Your task to perform on an android device: Check out the new ikea catalog. Image 0: 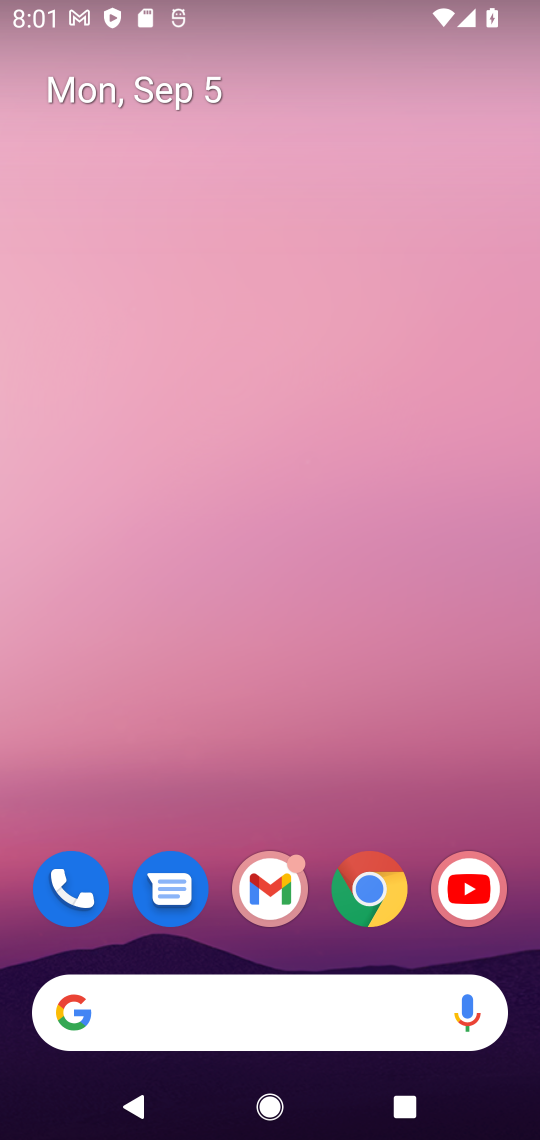
Step 0: click (272, 1016)
Your task to perform on an android device: Check out the new ikea catalog. Image 1: 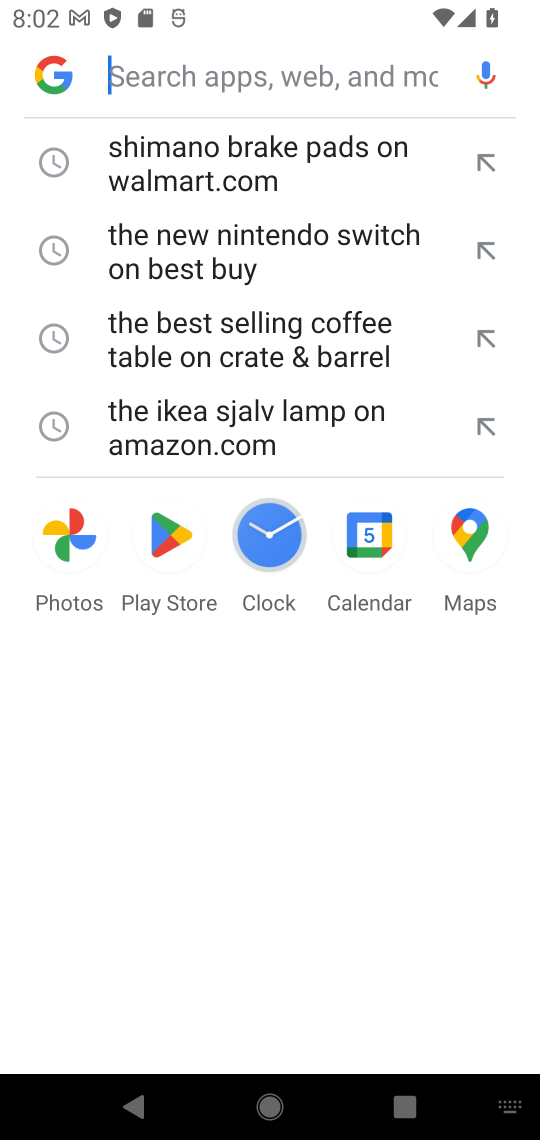
Step 1: type "the new ikea catalog"
Your task to perform on an android device: Check out the new ikea catalog. Image 2: 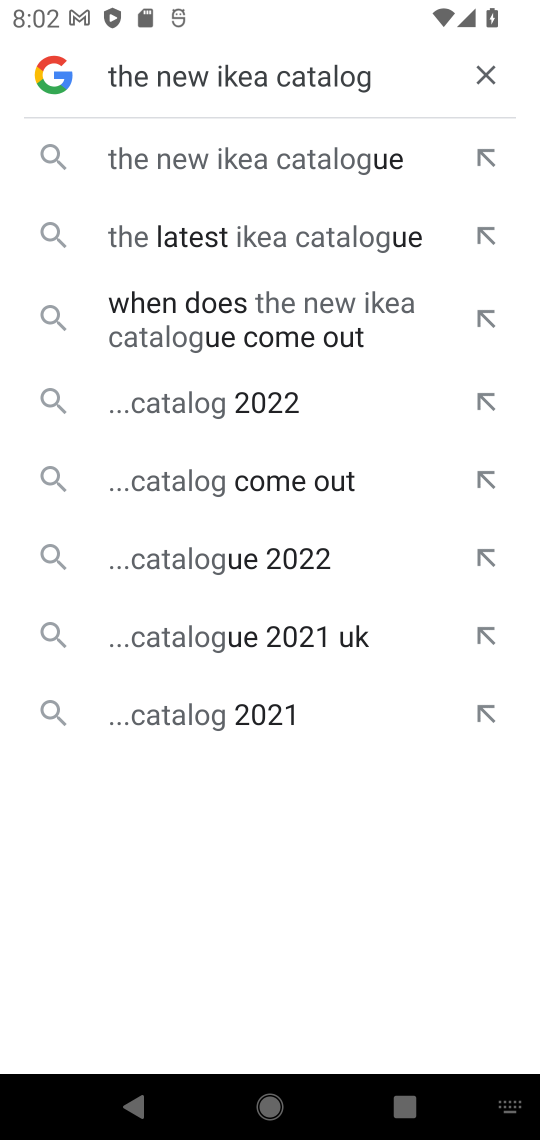
Step 2: click (227, 162)
Your task to perform on an android device: Check out the new ikea catalog. Image 3: 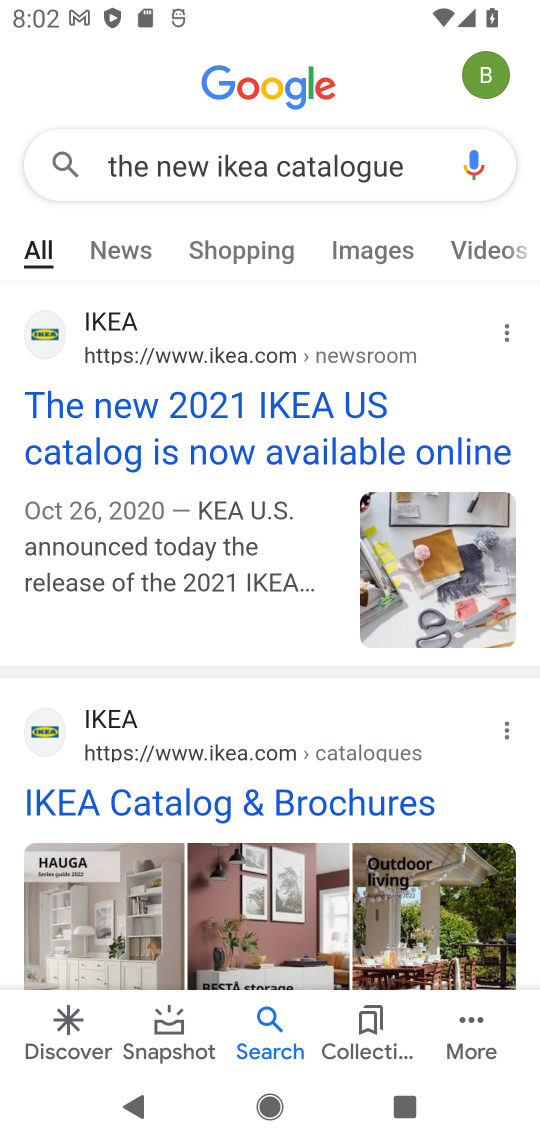
Step 3: click (243, 162)
Your task to perform on an android device: Check out the new ikea catalog. Image 4: 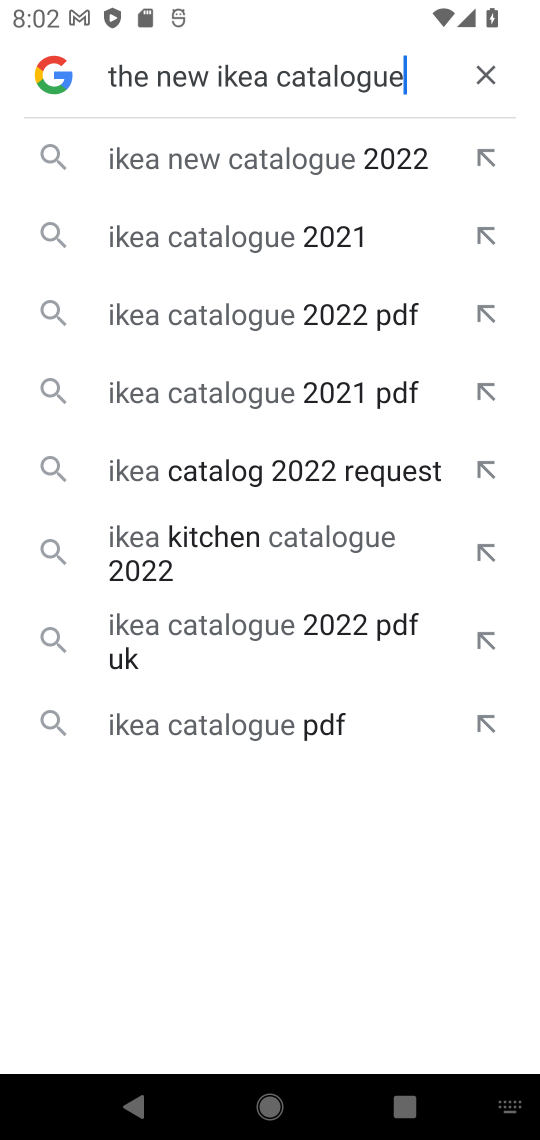
Step 4: click (363, 155)
Your task to perform on an android device: Check out the new ikea catalog. Image 5: 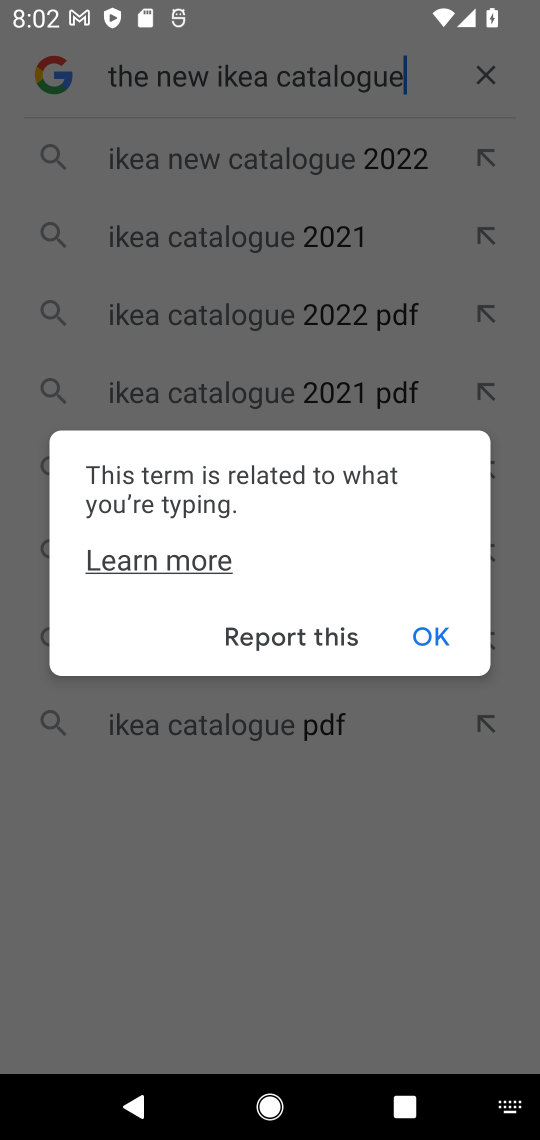
Step 5: click (363, 155)
Your task to perform on an android device: Check out the new ikea catalog. Image 6: 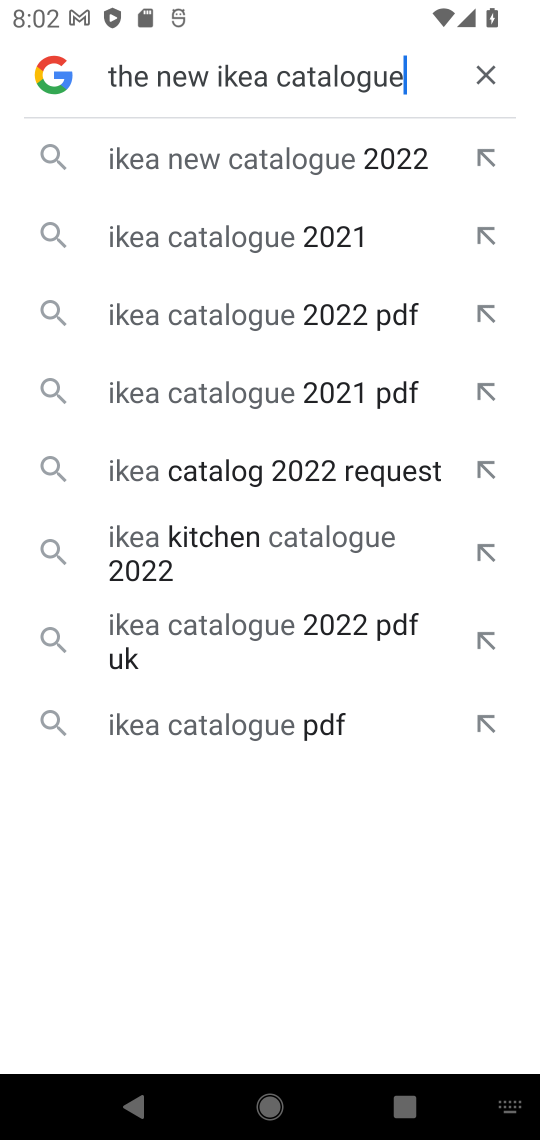
Step 6: click (450, 639)
Your task to perform on an android device: Check out the new ikea catalog. Image 7: 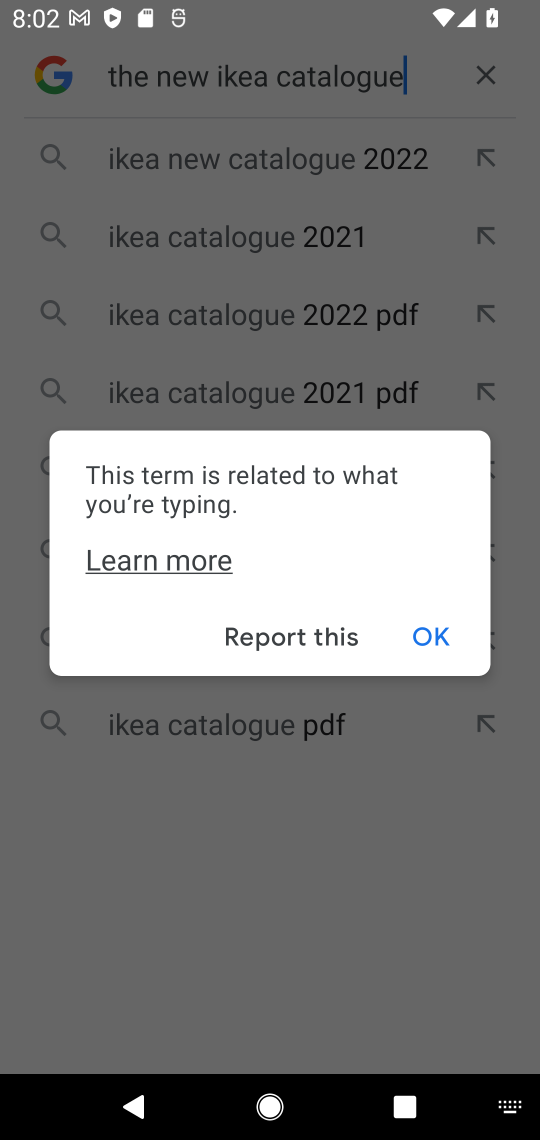
Step 7: click (431, 629)
Your task to perform on an android device: Check out the new ikea catalog. Image 8: 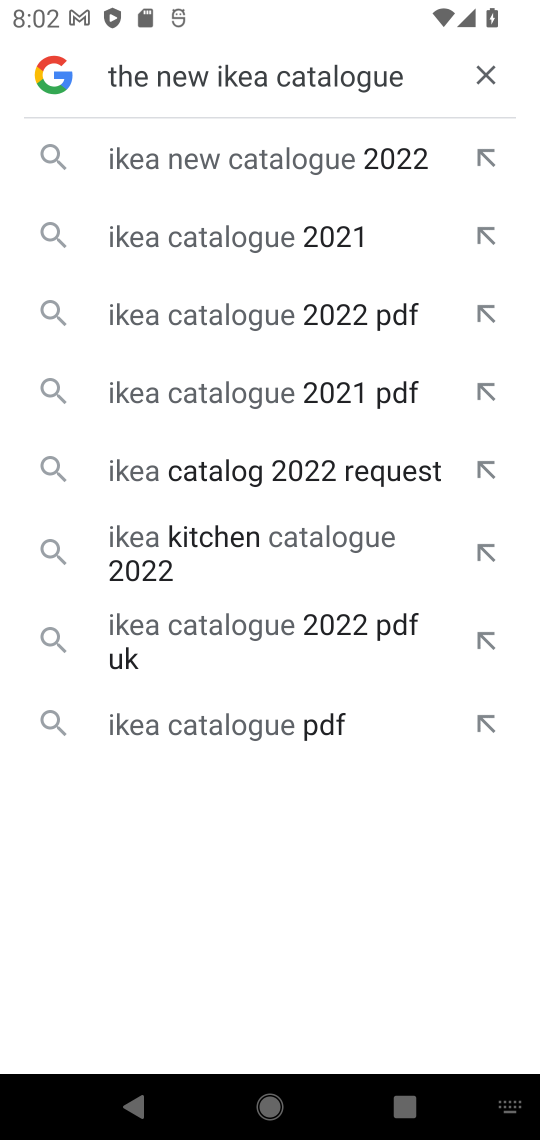
Step 8: click (298, 152)
Your task to perform on an android device: Check out the new ikea catalog. Image 9: 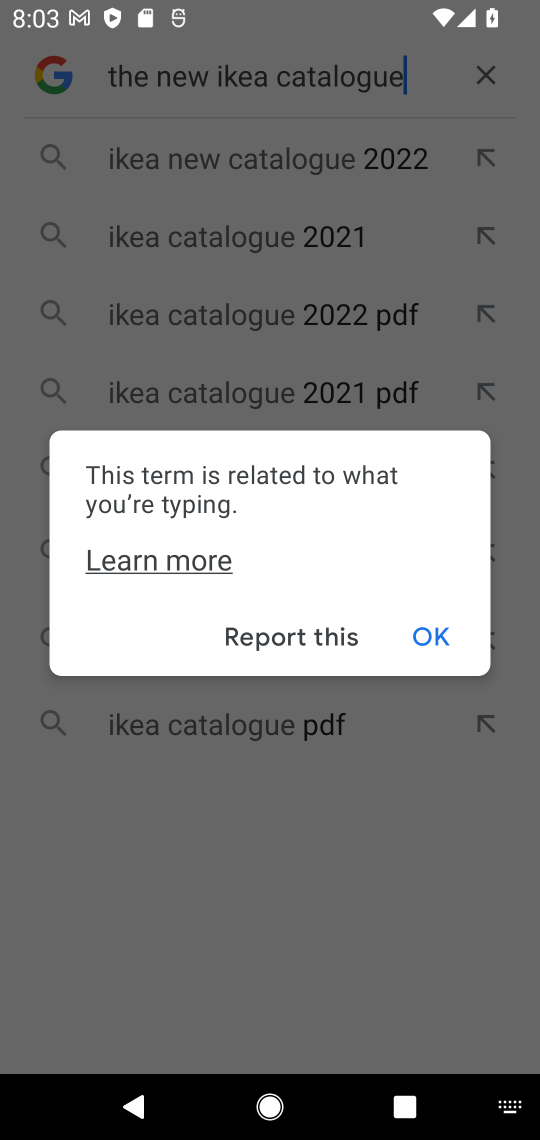
Step 9: click (440, 629)
Your task to perform on an android device: Check out the new ikea catalog. Image 10: 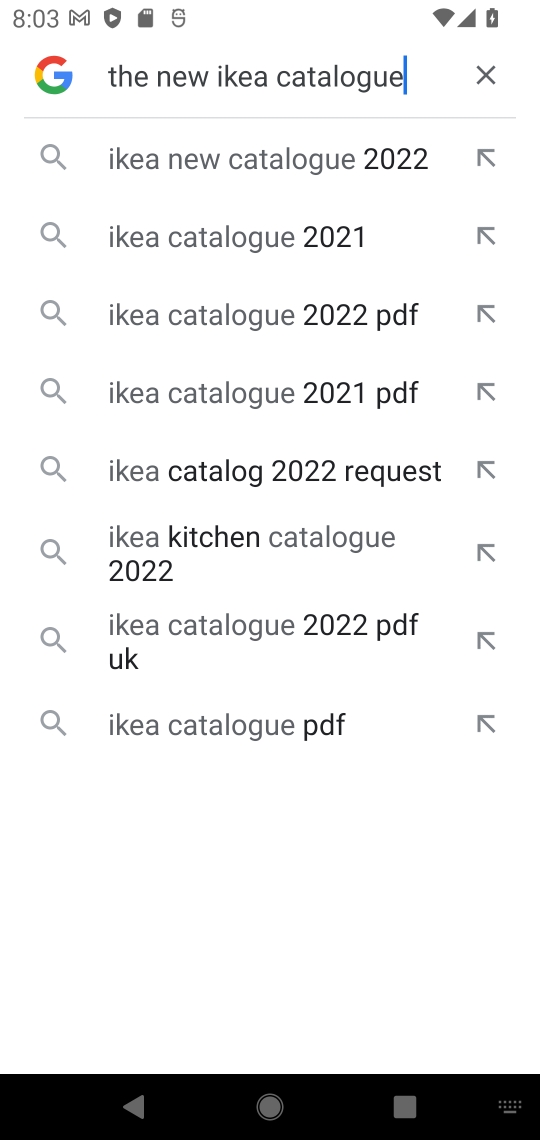
Step 10: click (490, 65)
Your task to perform on an android device: Check out the new ikea catalog. Image 11: 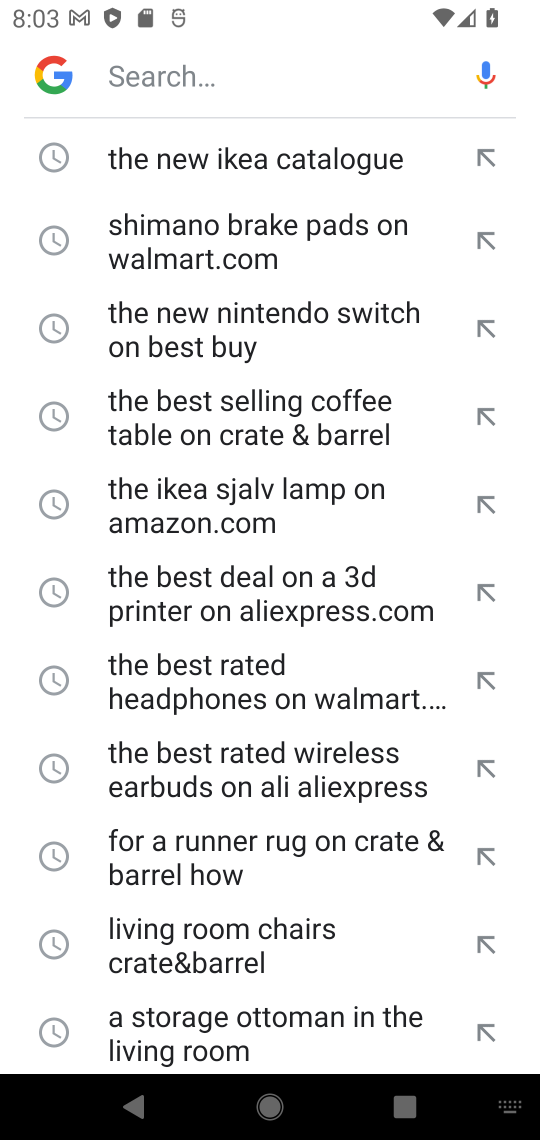
Step 11: type "the new ikea catalog"
Your task to perform on an android device: Check out the new ikea catalog. Image 12: 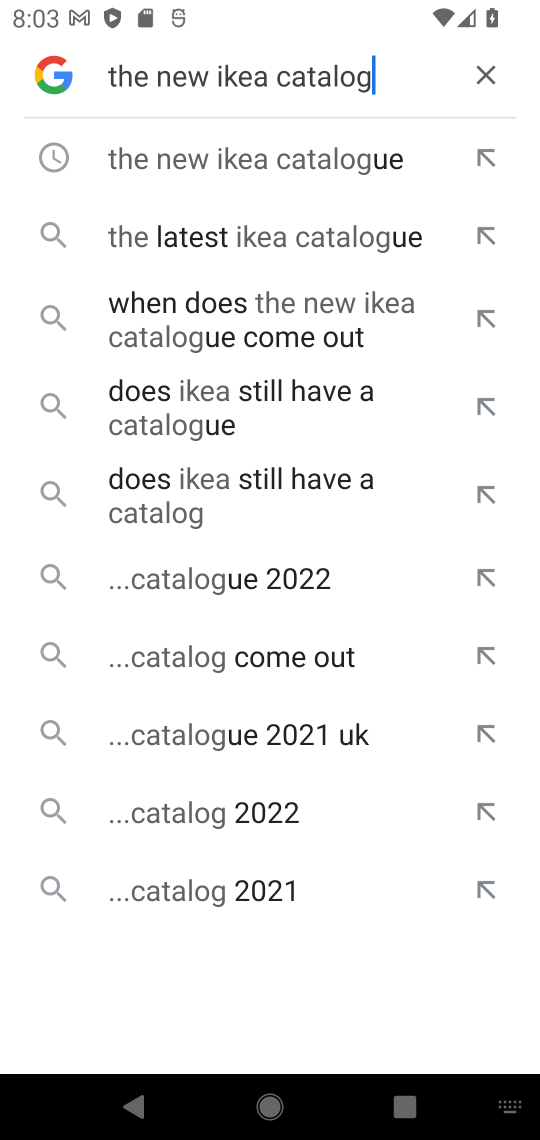
Step 12: click (245, 156)
Your task to perform on an android device: Check out the new ikea catalog. Image 13: 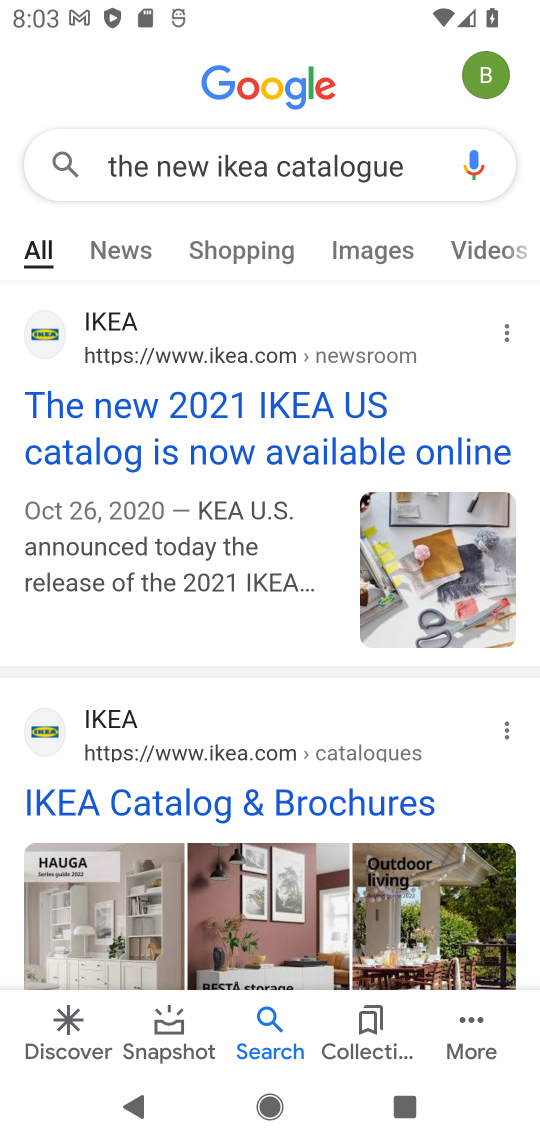
Step 13: task complete